Your task to perform on an android device: open sync settings in chrome Image 0: 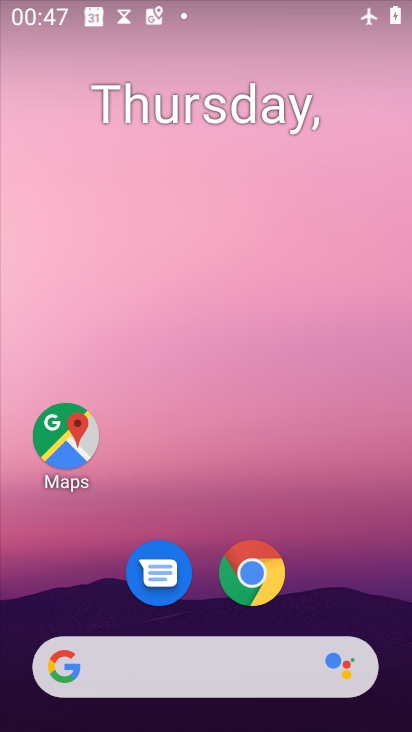
Step 0: drag from (297, 579) to (311, 512)
Your task to perform on an android device: open sync settings in chrome Image 1: 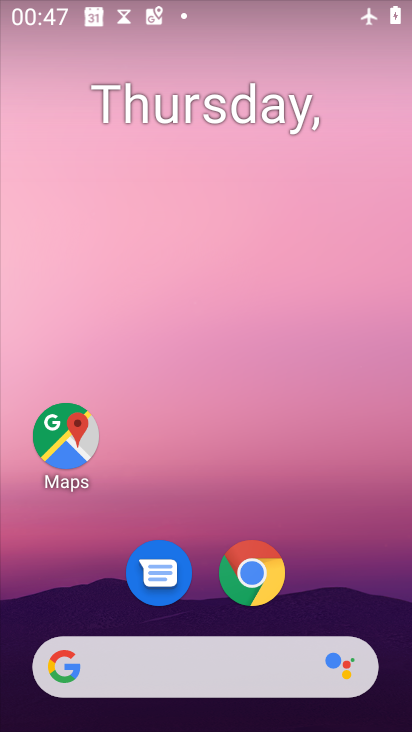
Step 1: click (259, 572)
Your task to perform on an android device: open sync settings in chrome Image 2: 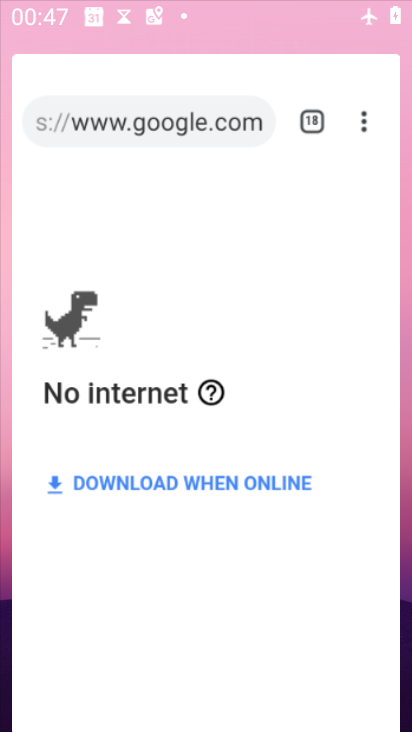
Step 2: click (259, 571)
Your task to perform on an android device: open sync settings in chrome Image 3: 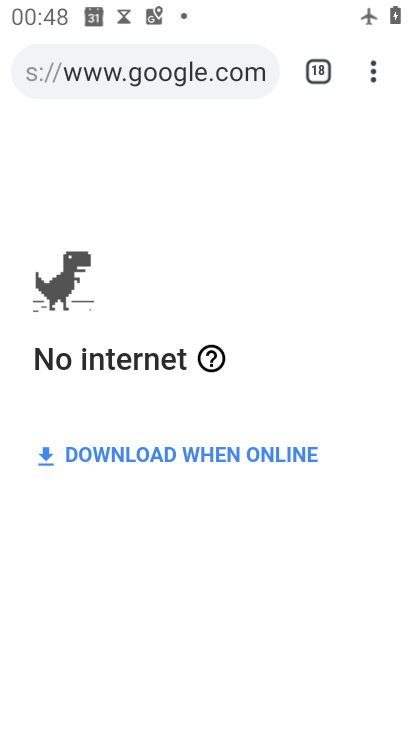
Step 3: click (367, 60)
Your task to perform on an android device: open sync settings in chrome Image 4: 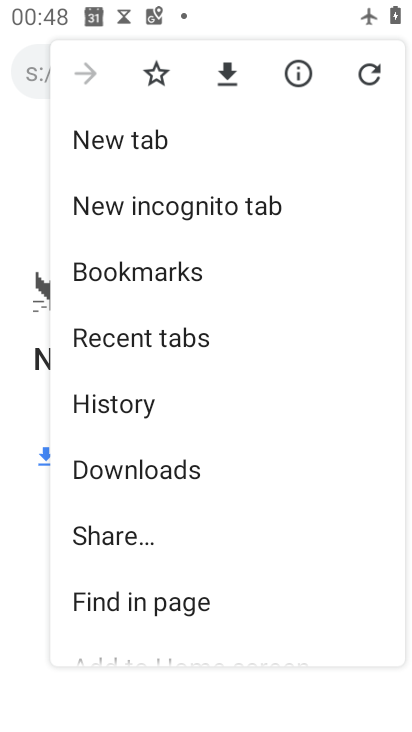
Step 4: drag from (214, 548) to (279, 259)
Your task to perform on an android device: open sync settings in chrome Image 5: 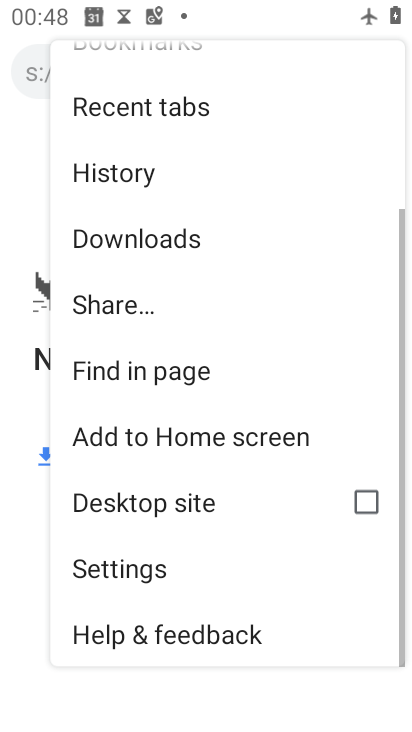
Step 5: click (143, 571)
Your task to perform on an android device: open sync settings in chrome Image 6: 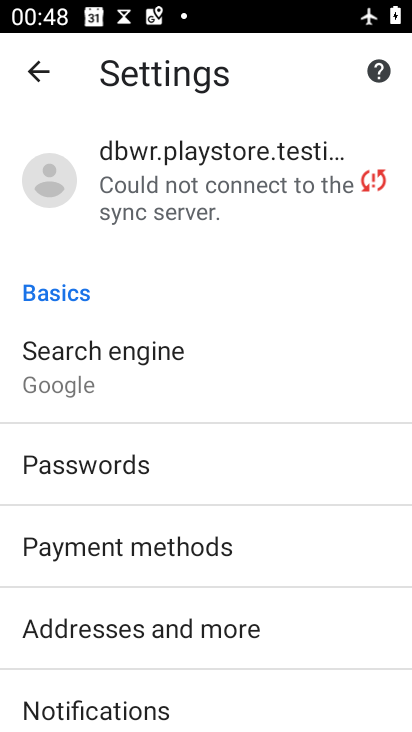
Step 6: click (199, 207)
Your task to perform on an android device: open sync settings in chrome Image 7: 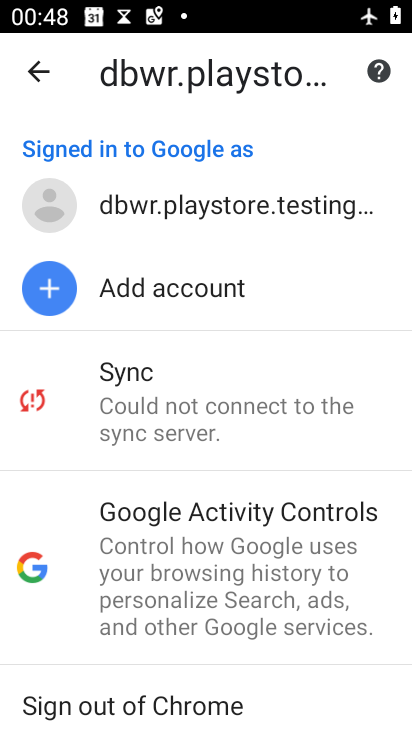
Step 7: click (287, 377)
Your task to perform on an android device: open sync settings in chrome Image 8: 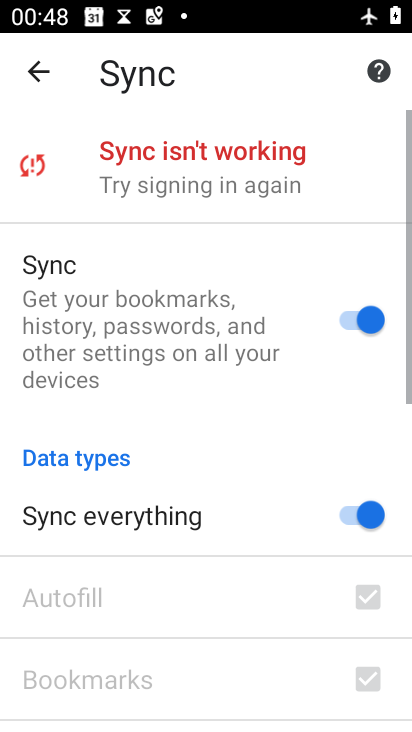
Step 8: task complete